Your task to perform on an android device: check android version Image 0: 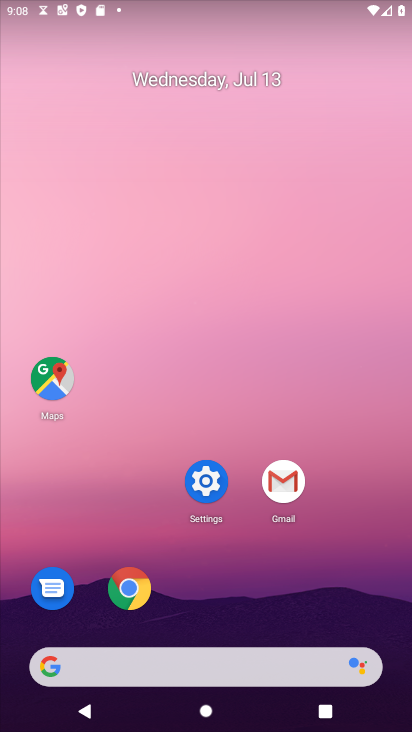
Step 0: click (202, 478)
Your task to perform on an android device: check android version Image 1: 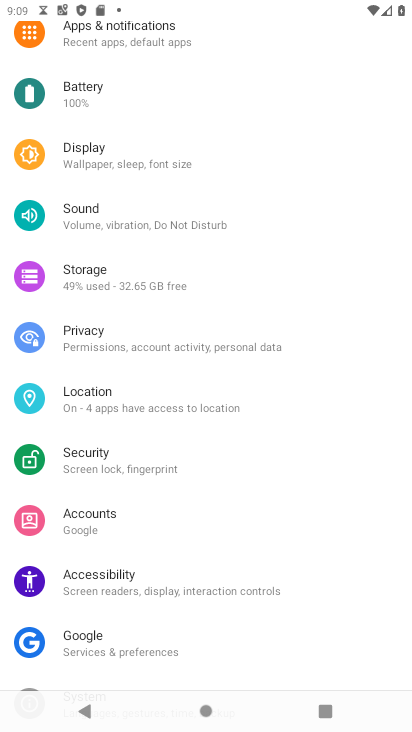
Step 1: drag from (336, 560) to (337, 130)
Your task to perform on an android device: check android version Image 2: 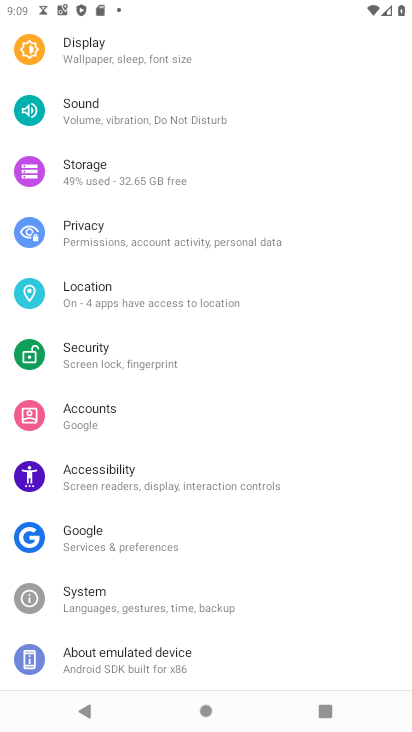
Step 2: click (89, 652)
Your task to perform on an android device: check android version Image 3: 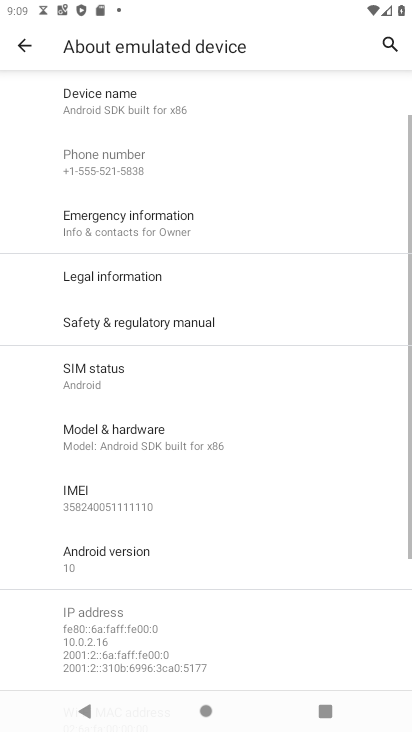
Step 3: click (99, 548)
Your task to perform on an android device: check android version Image 4: 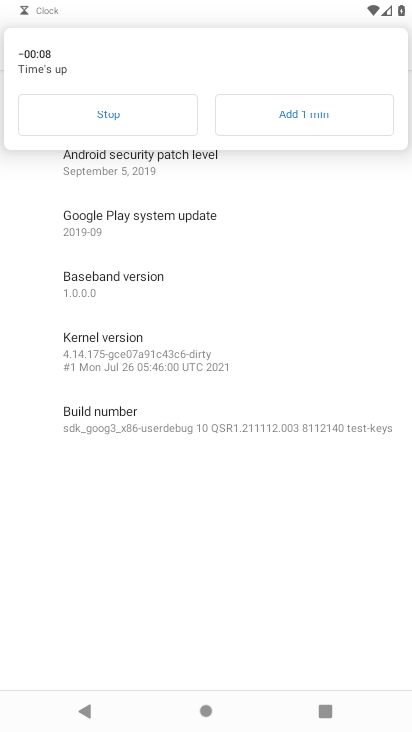
Step 4: task complete